Your task to perform on an android device: Open location settings Image 0: 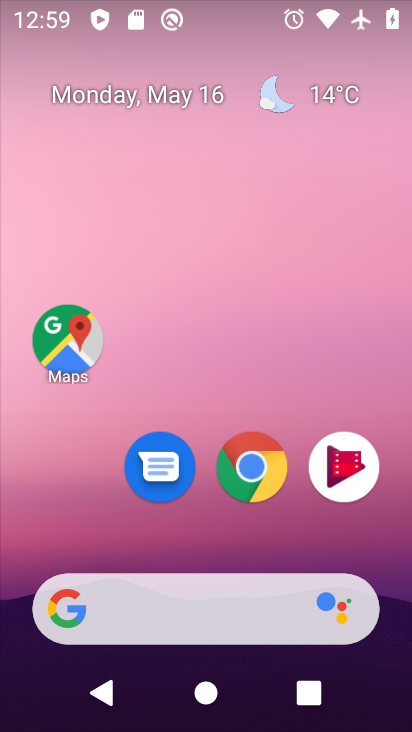
Step 0: drag from (233, 560) to (284, 218)
Your task to perform on an android device: Open location settings Image 1: 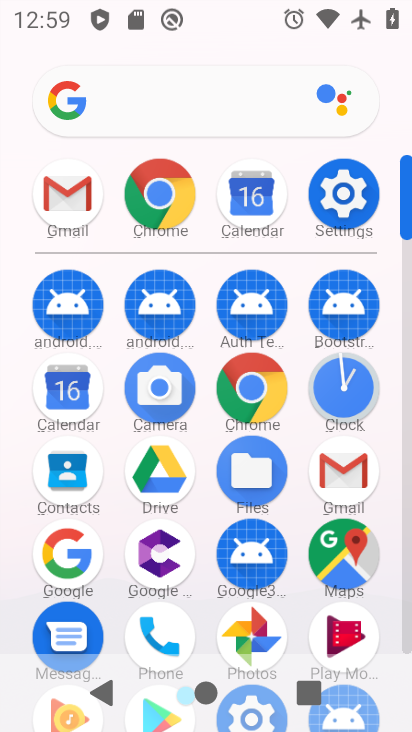
Step 1: click (327, 190)
Your task to perform on an android device: Open location settings Image 2: 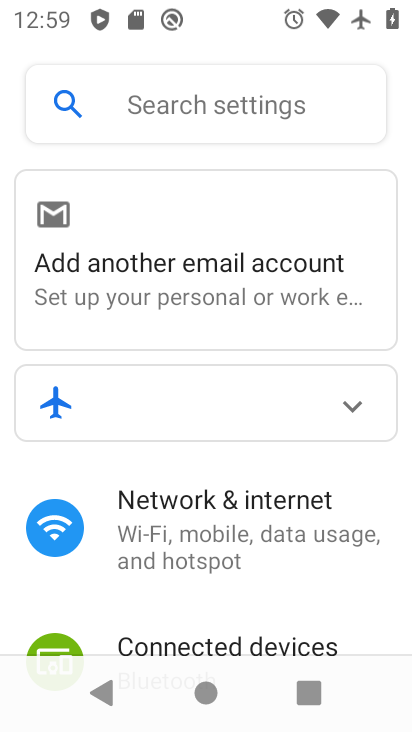
Step 2: drag from (216, 561) to (242, 171)
Your task to perform on an android device: Open location settings Image 3: 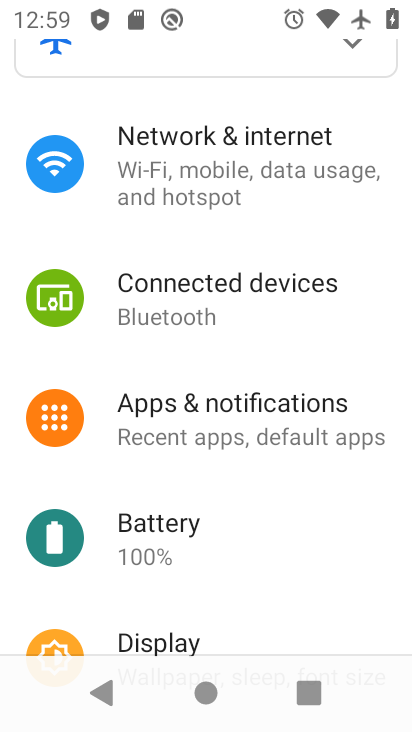
Step 3: drag from (201, 552) to (228, 231)
Your task to perform on an android device: Open location settings Image 4: 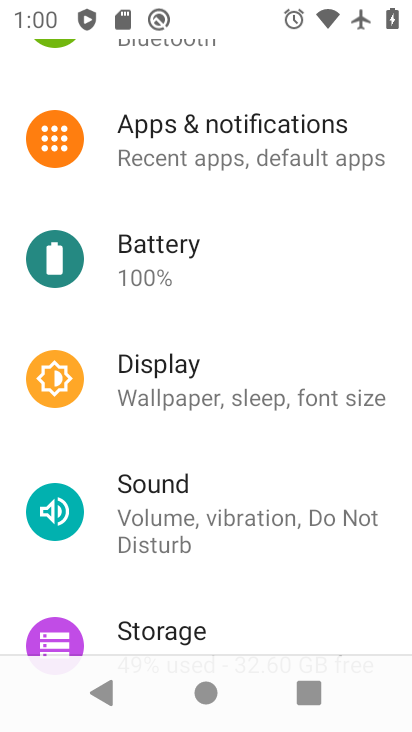
Step 4: drag from (171, 591) to (278, 157)
Your task to perform on an android device: Open location settings Image 5: 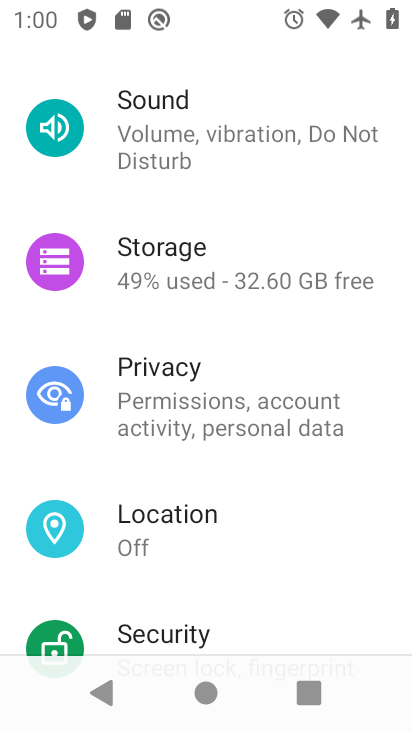
Step 5: click (142, 524)
Your task to perform on an android device: Open location settings Image 6: 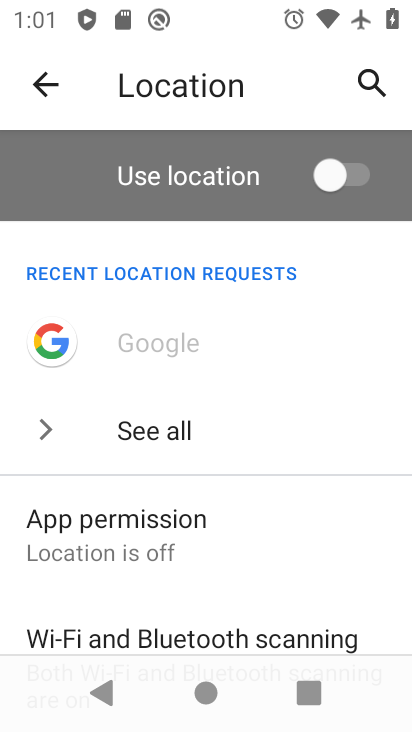
Step 6: task complete